Your task to perform on an android device: change the clock style Image 0: 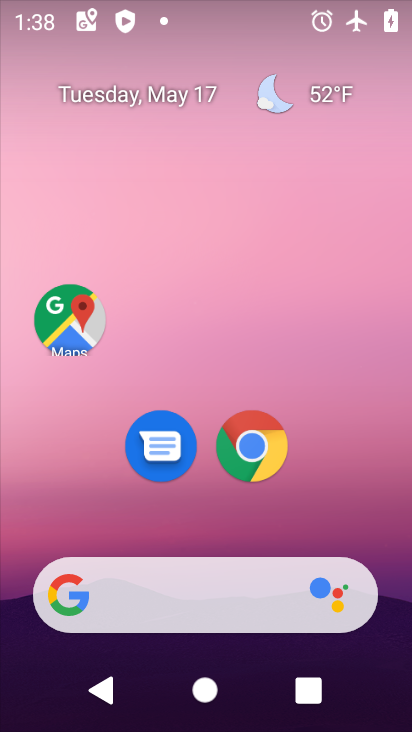
Step 0: drag from (189, 541) to (196, 160)
Your task to perform on an android device: change the clock style Image 1: 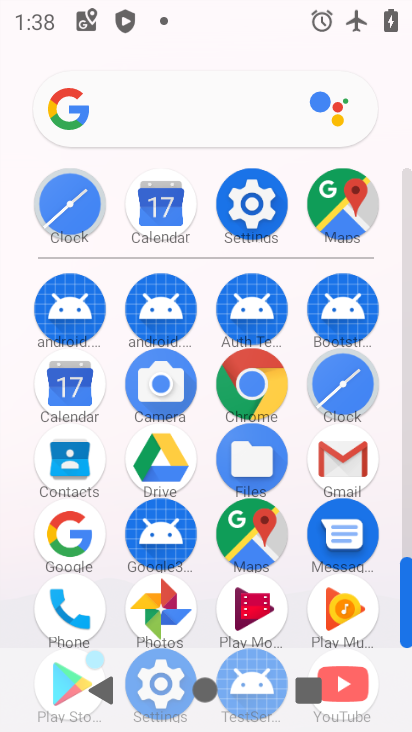
Step 1: click (343, 376)
Your task to perform on an android device: change the clock style Image 2: 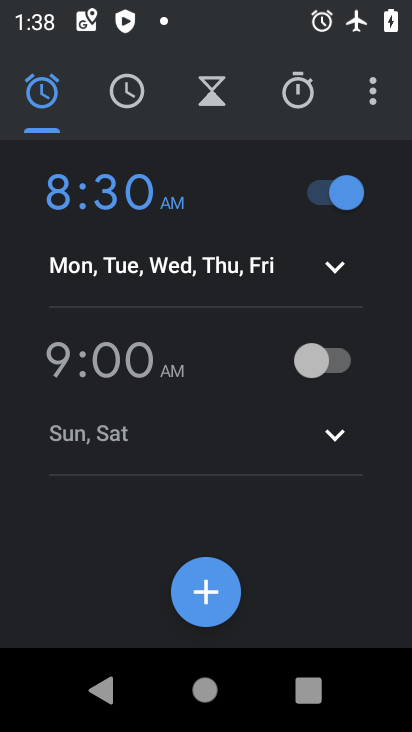
Step 2: click (370, 94)
Your task to perform on an android device: change the clock style Image 3: 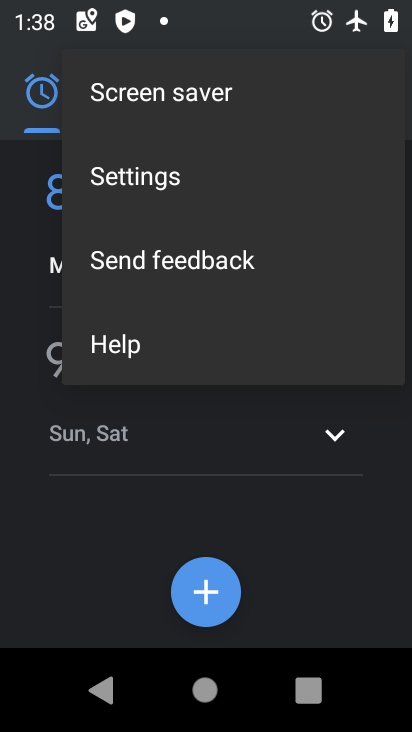
Step 3: click (138, 168)
Your task to perform on an android device: change the clock style Image 4: 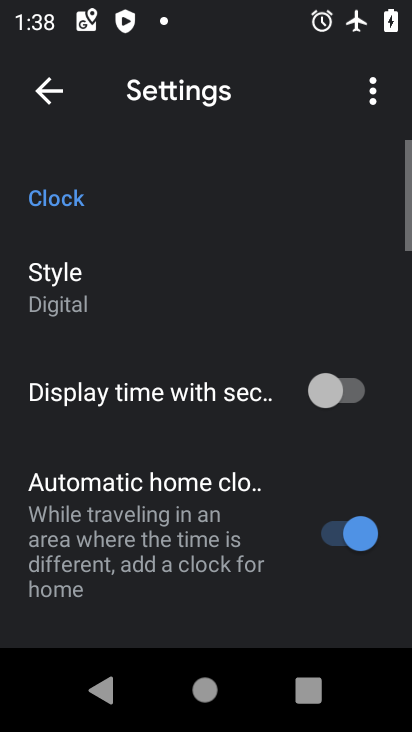
Step 4: click (54, 284)
Your task to perform on an android device: change the clock style Image 5: 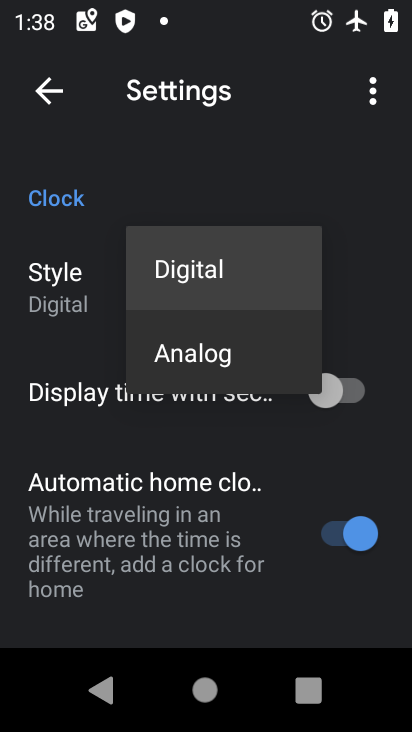
Step 5: click (226, 345)
Your task to perform on an android device: change the clock style Image 6: 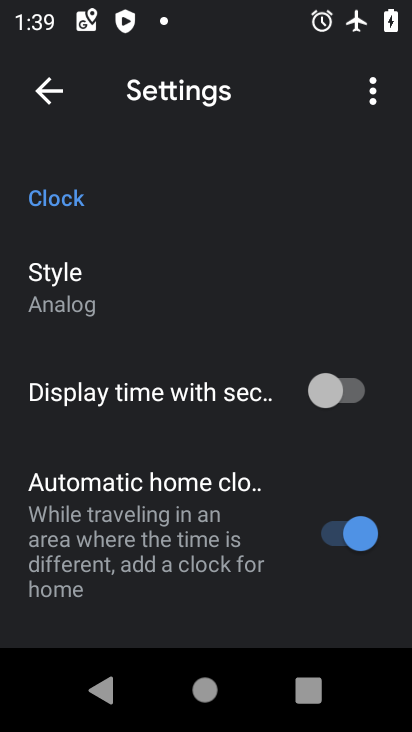
Step 6: task complete